Your task to perform on an android device: Show me popular games on the Play Store Image 0: 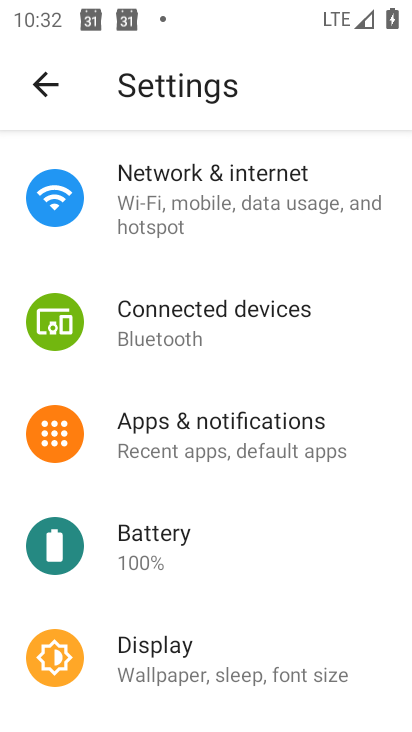
Step 0: press home button
Your task to perform on an android device: Show me popular games on the Play Store Image 1: 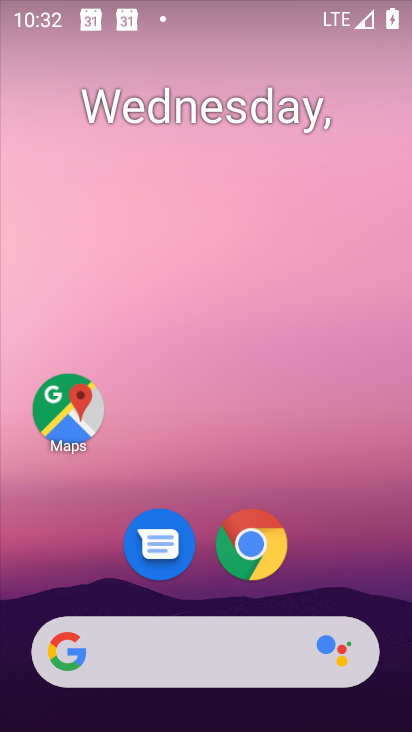
Step 1: drag from (186, 599) to (203, 156)
Your task to perform on an android device: Show me popular games on the Play Store Image 2: 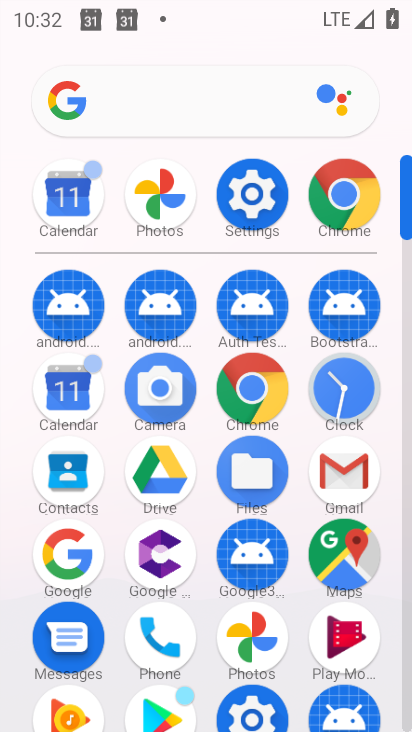
Step 2: click (155, 696)
Your task to perform on an android device: Show me popular games on the Play Store Image 3: 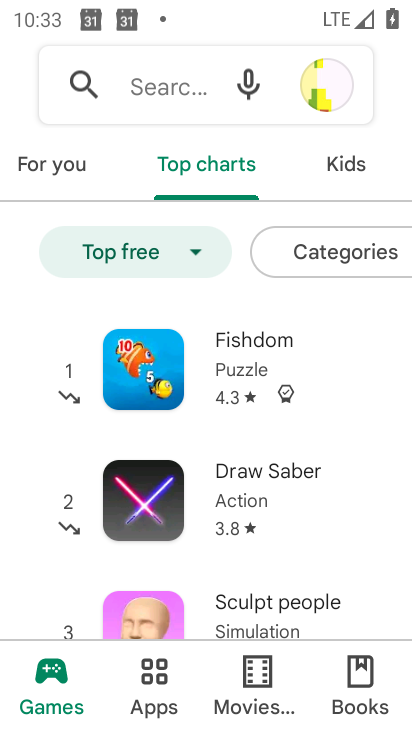
Step 3: task complete